Your task to perform on an android device: Show me popular games on the Play Store Image 0: 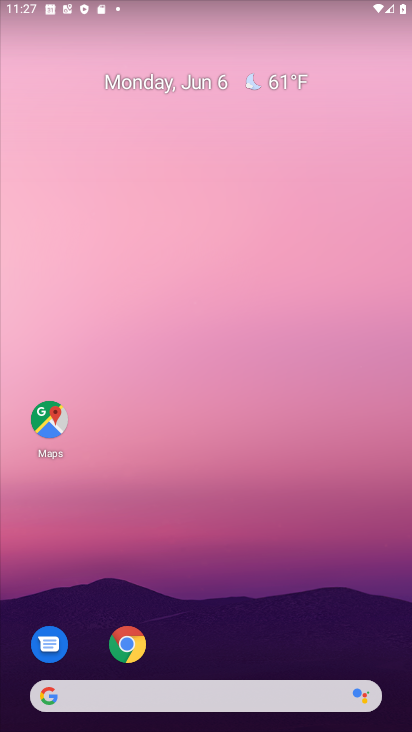
Step 0: drag from (231, 644) to (277, 253)
Your task to perform on an android device: Show me popular games on the Play Store Image 1: 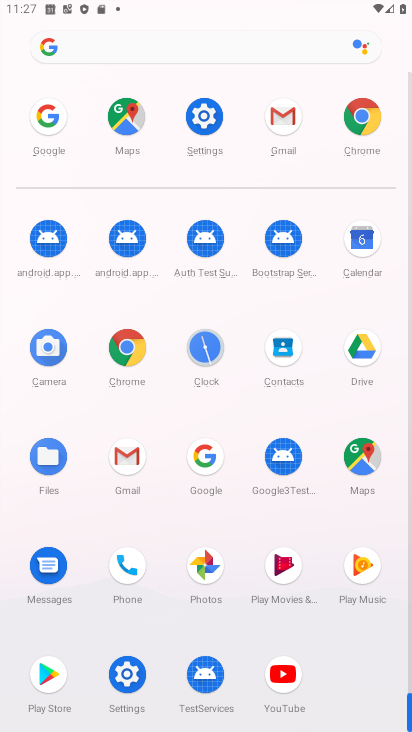
Step 1: click (38, 678)
Your task to perform on an android device: Show me popular games on the Play Store Image 2: 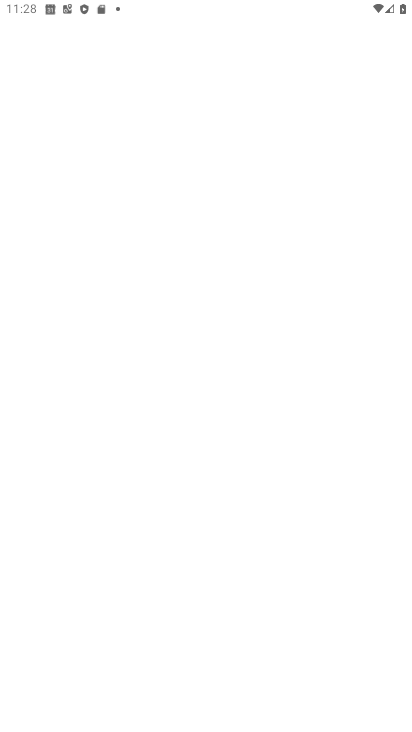
Step 2: press home button
Your task to perform on an android device: Show me popular games on the Play Store Image 3: 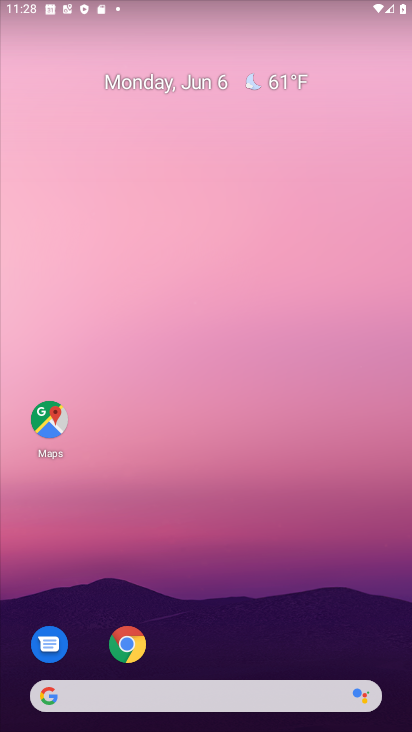
Step 3: drag from (207, 683) to (218, 378)
Your task to perform on an android device: Show me popular games on the Play Store Image 4: 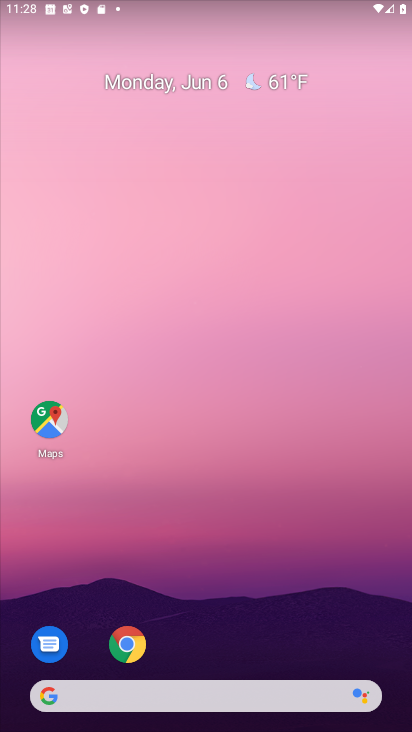
Step 4: drag from (194, 626) to (188, 159)
Your task to perform on an android device: Show me popular games on the Play Store Image 5: 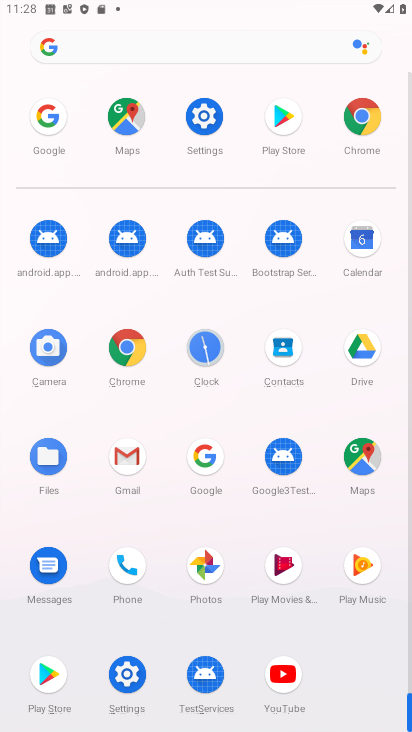
Step 5: click (60, 677)
Your task to perform on an android device: Show me popular games on the Play Store Image 6: 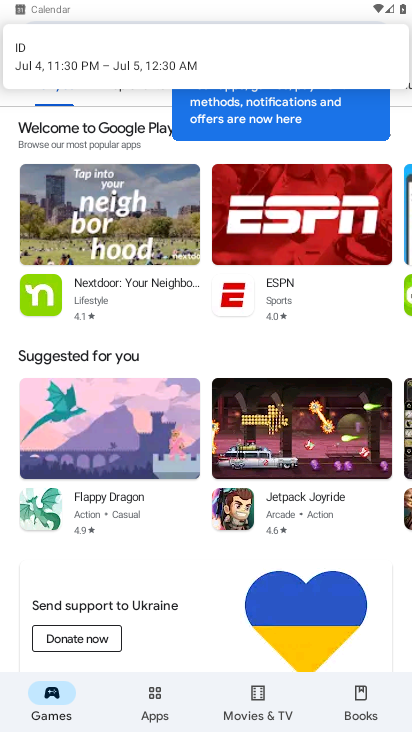
Step 6: task complete